Your task to perform on an android device: open app "Fetch Rewards" (install if not already installed) Image 0: 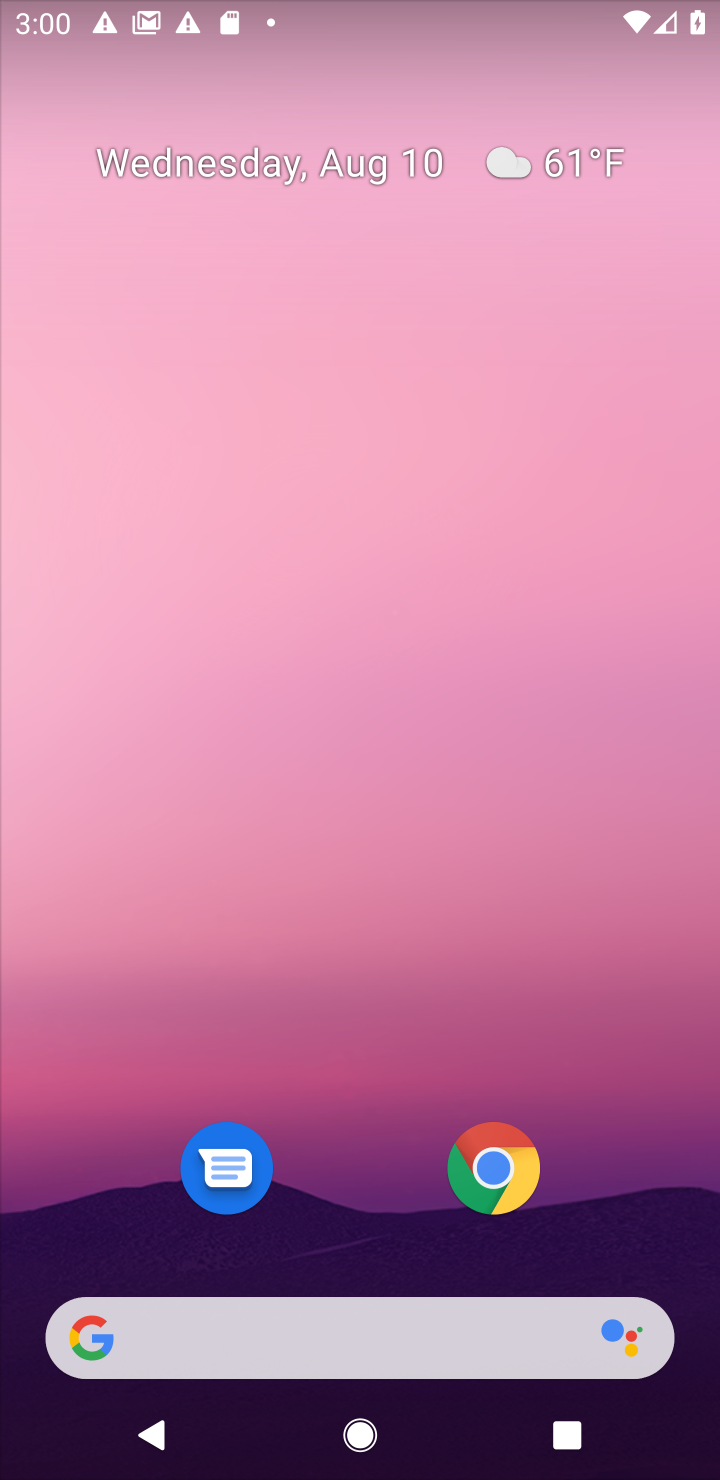
Step 0: drag from (255, 1348) to (394, 98)
Your task to perform on an android device: open app "Fetch Rewards" (install if not already installed) Image 1: 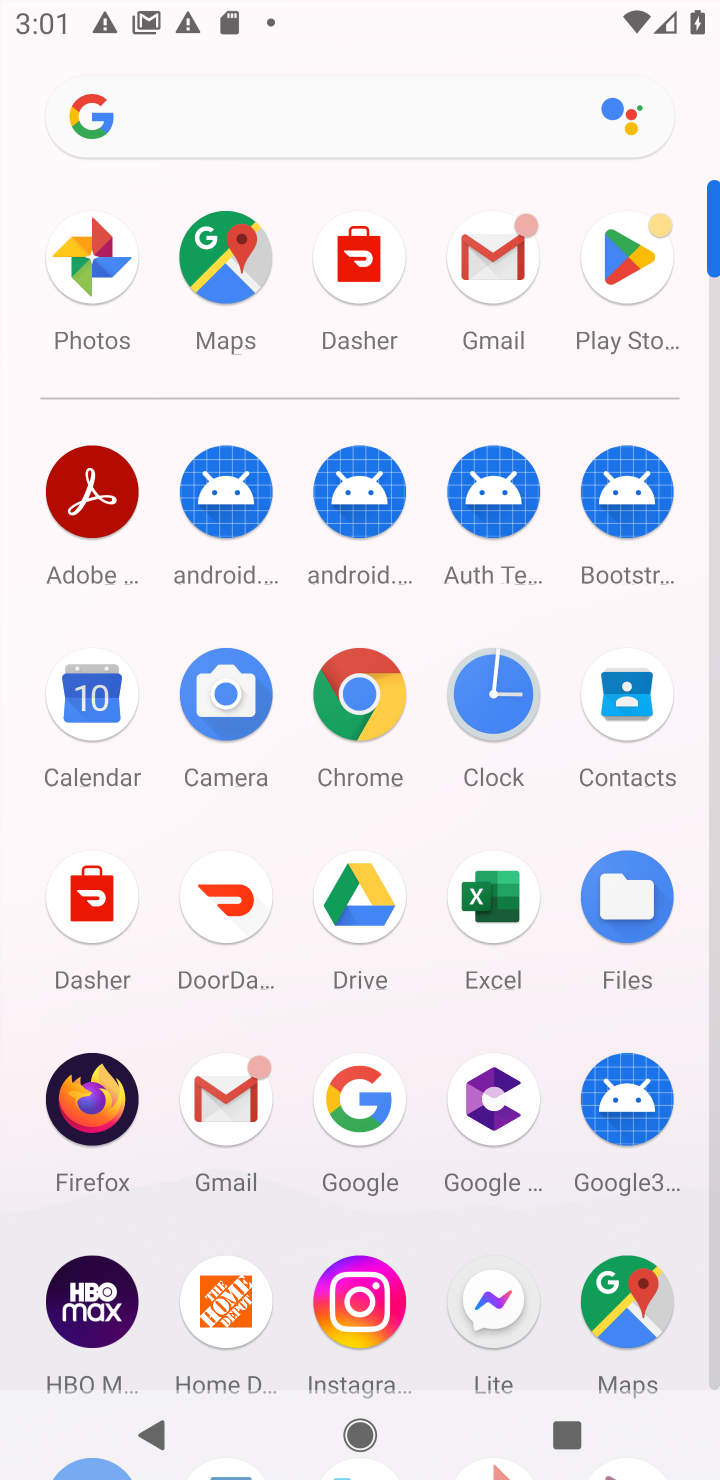
Step 1: click (643, 263)
Your task to perform on an android device: open app "Fetch Rewards" (install if not already installed) Image 2: 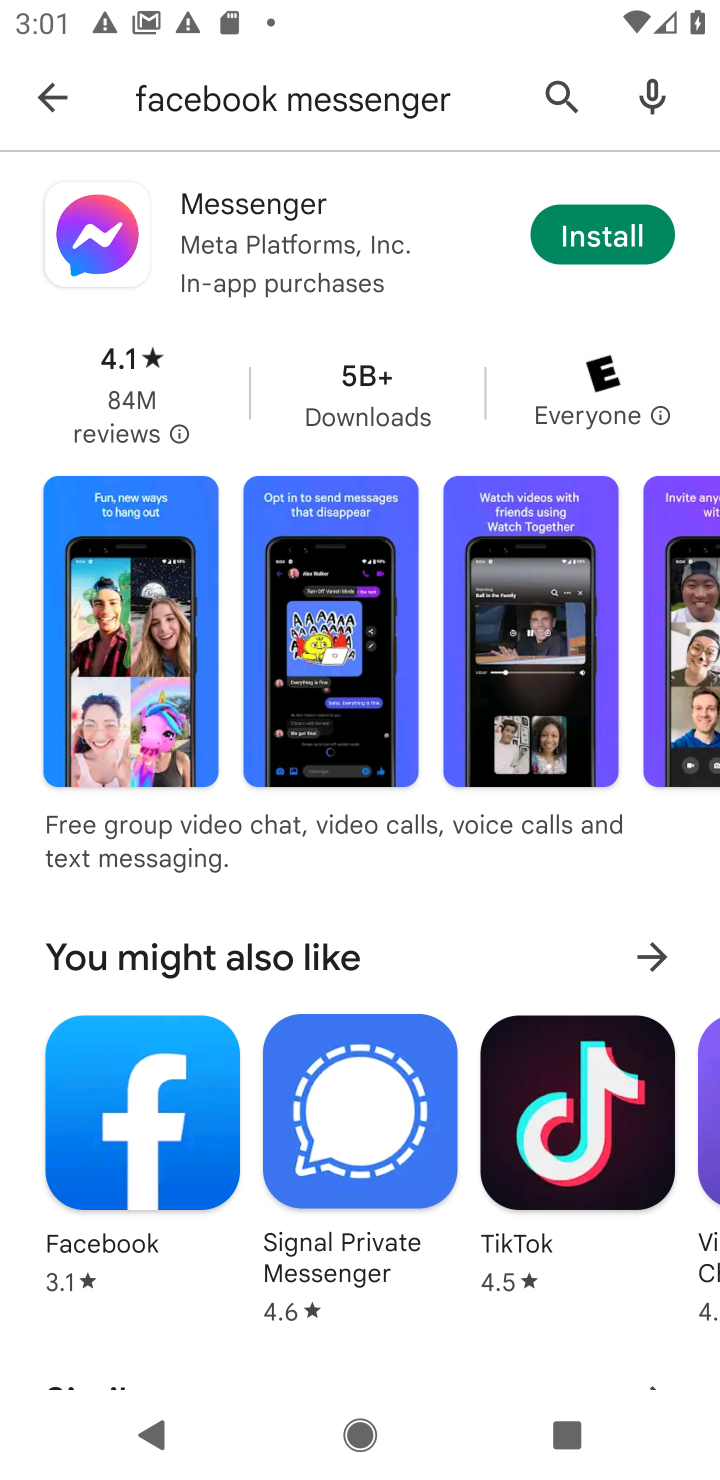
Step 2: press back button
Your task to perform on an android device: open app "Fetch Rewards" (install if not already installed) Image 3: 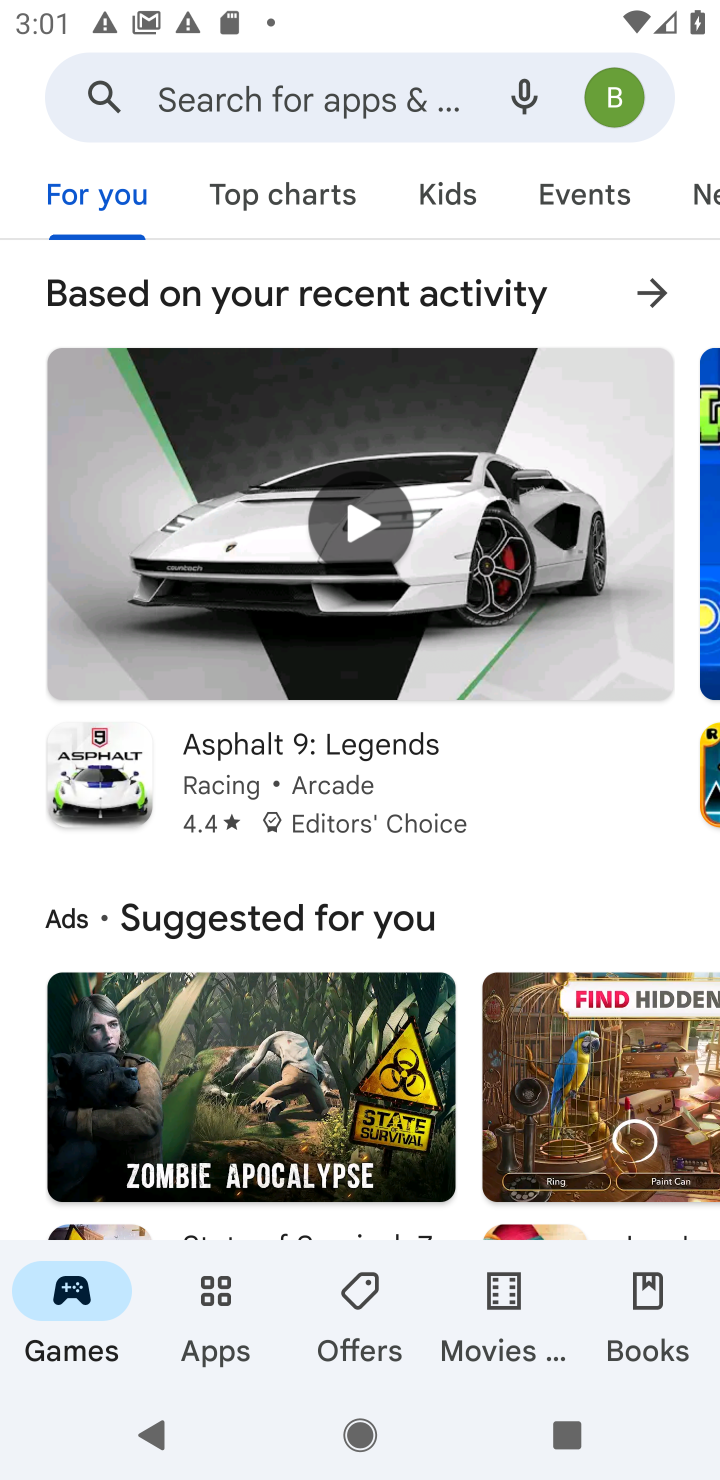
Step 3: click (336, 99)
Your task to perform on an android device: open app "Fetch Rewards" (install if not already installed) Image 4: 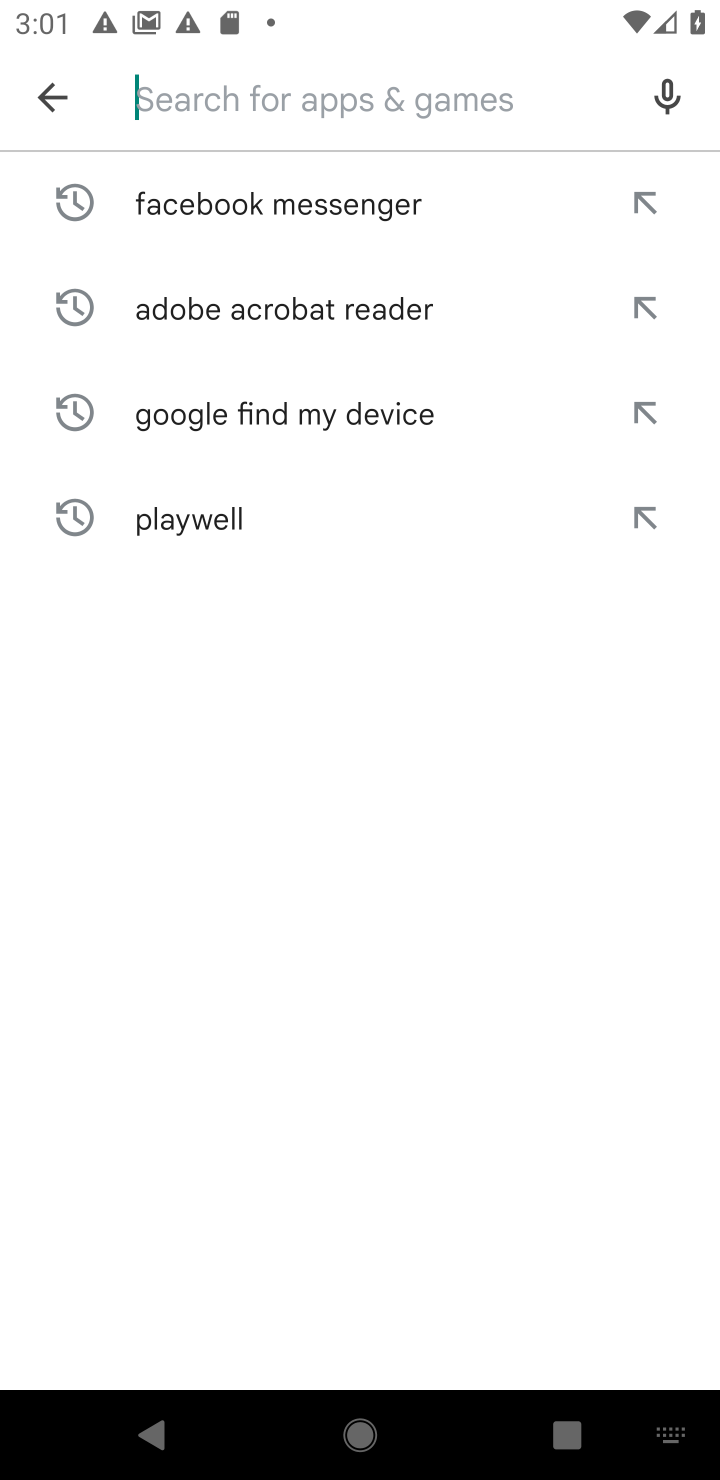
Step 4: type "Fetch Reward"
Your task to perform on an android device: open app "Fetch Rewards" (install if not already installed) Image 5: 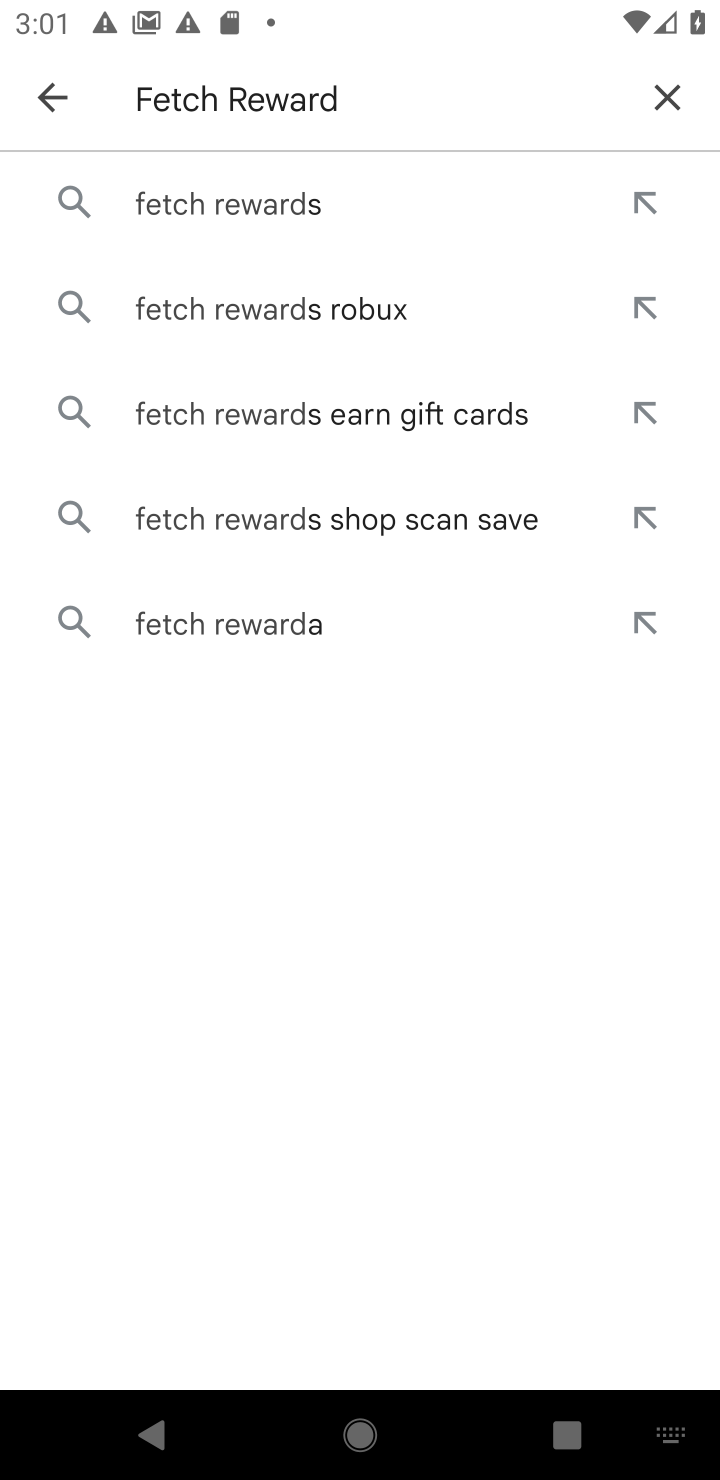
Step 5: click (294, 204)
Your task to perform on an android device: open app "Fetch Rewards" (install if not already installed) Image 6: 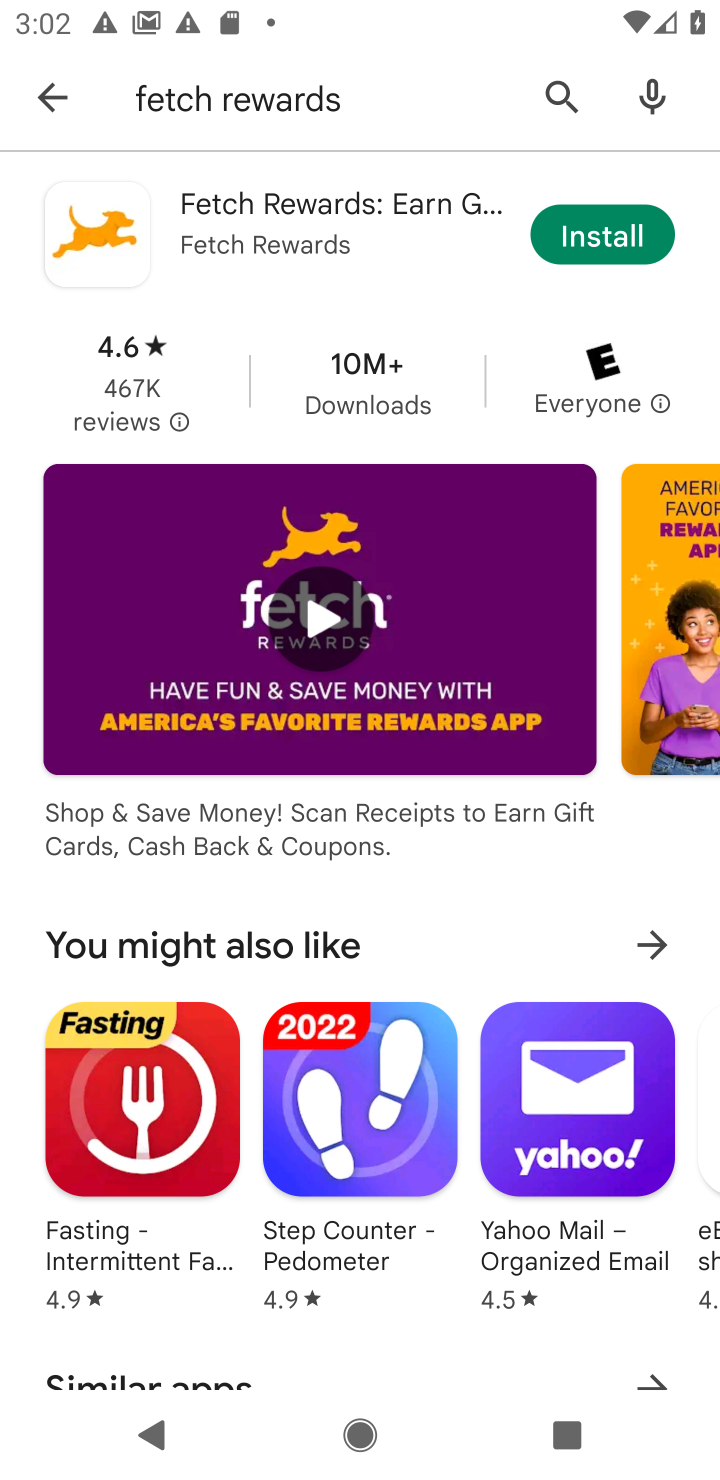
Step 6: click (603, 246)
Your task to perform on an android device: open app "Fetch Rewards" (install if not already installed) Image 7: 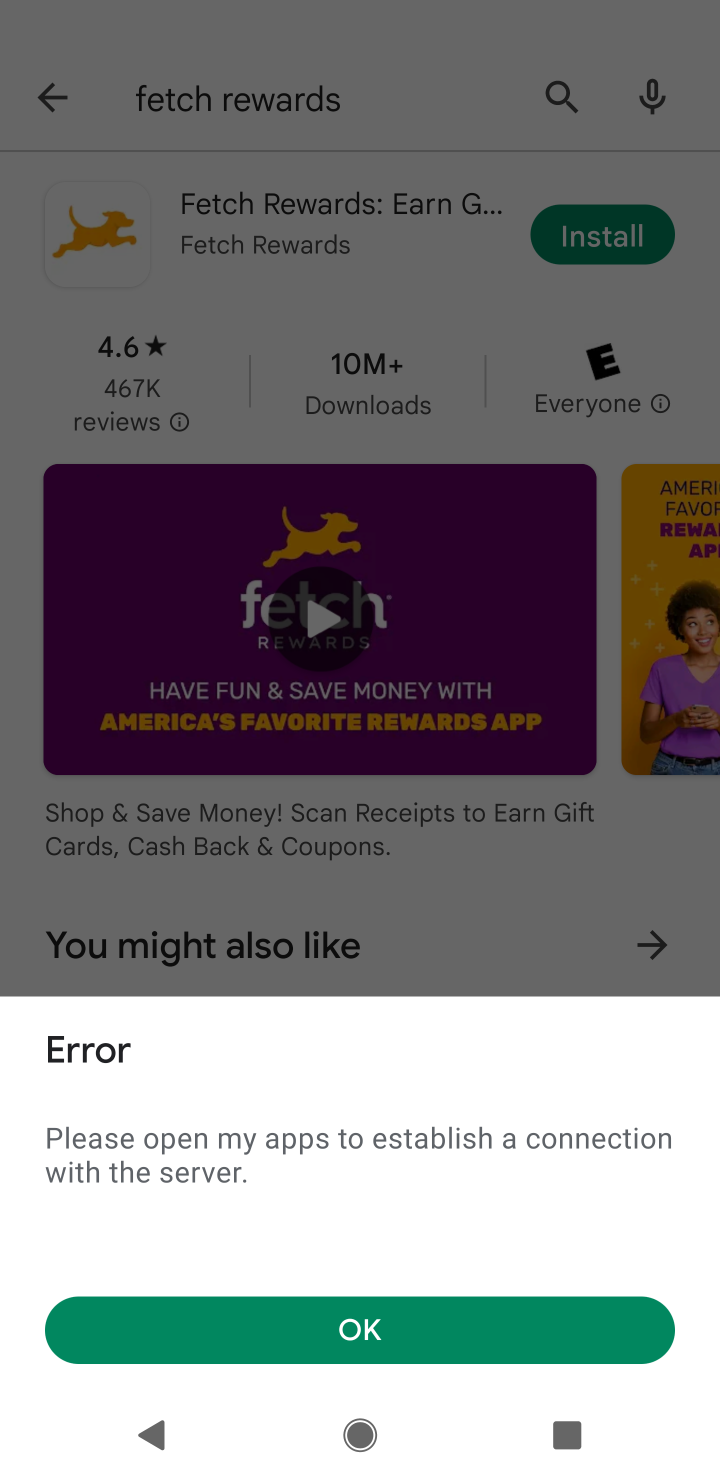
Step 7: click (410, 1326)
Your task to perform on an android device: open app "Fetch Rewards" (install if not already installed) Image 8: 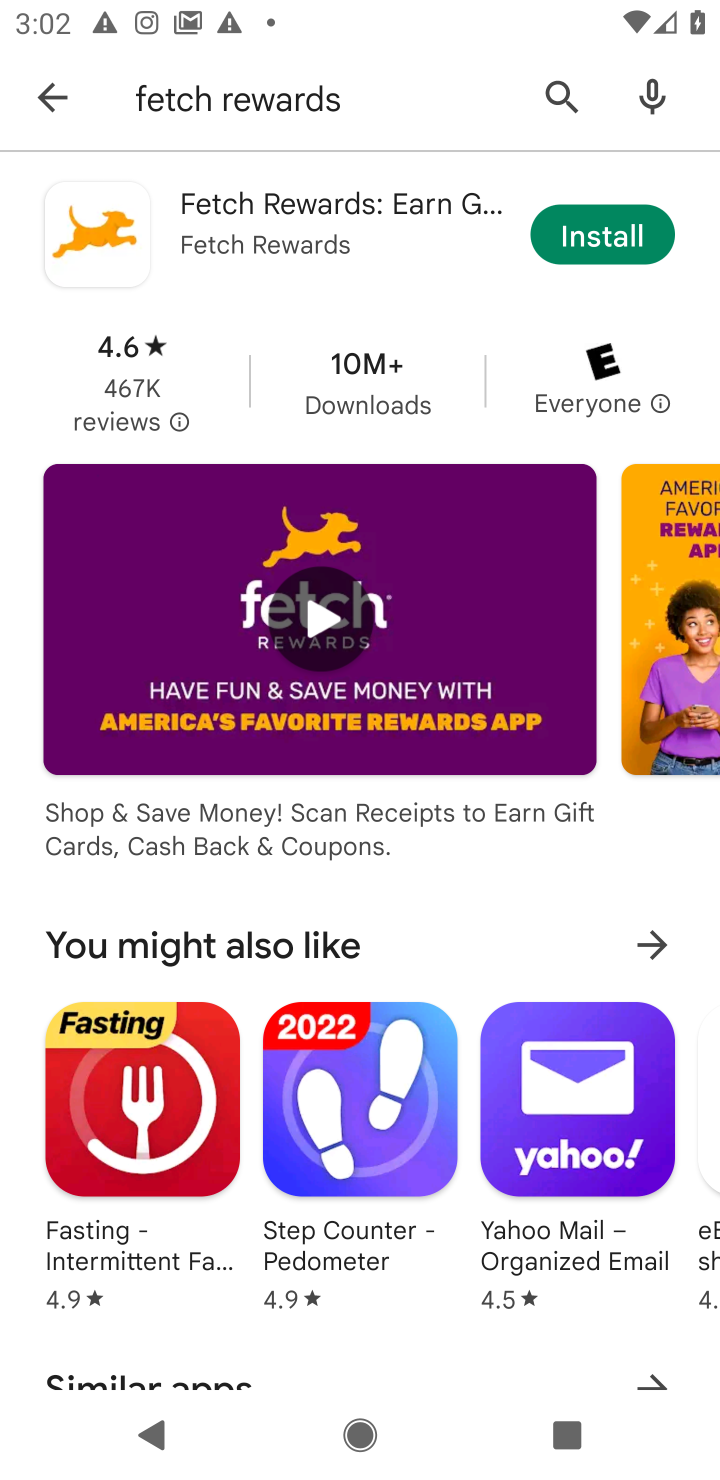
Step 8: click (304, 197)
Your task to perform on an android device: open app "Fetch Rewards" (install if not already installed) Image 9: 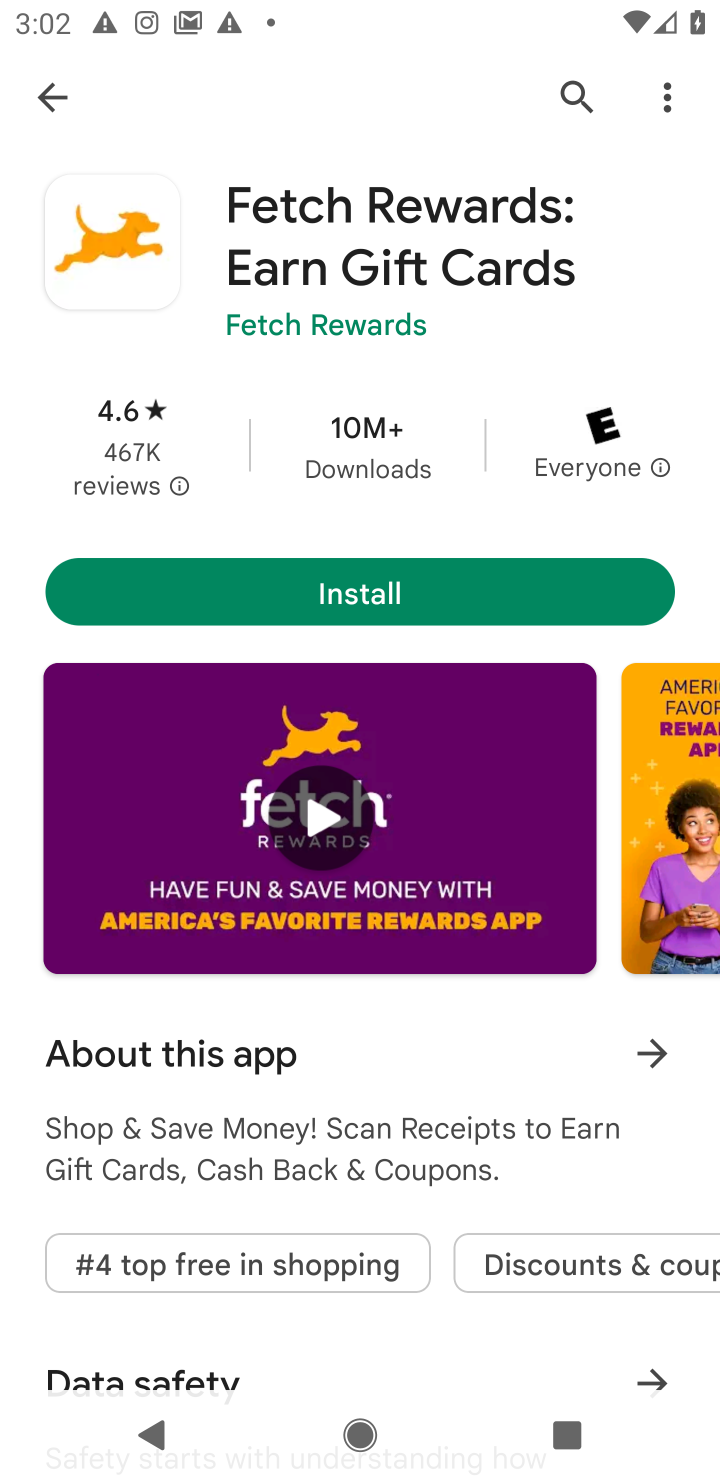
Step 9: click (408, 605)
Your task to perform on an android device: open app "Fetch Rewards" (install if not already installed) Image 10: 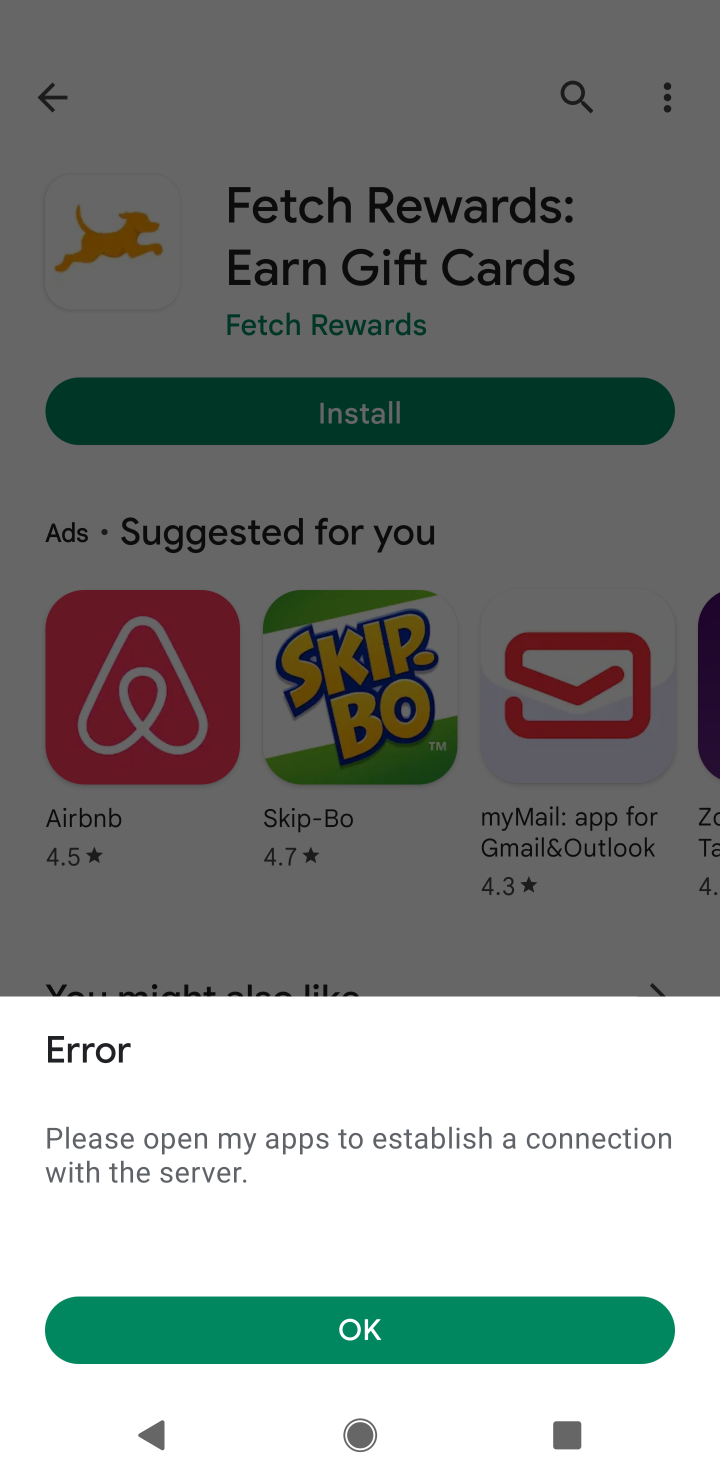
Step 10: click (377, 1335)
Your task to perform on an android device: open app "Fetch Rewards" (install if not already installed) Image 11: 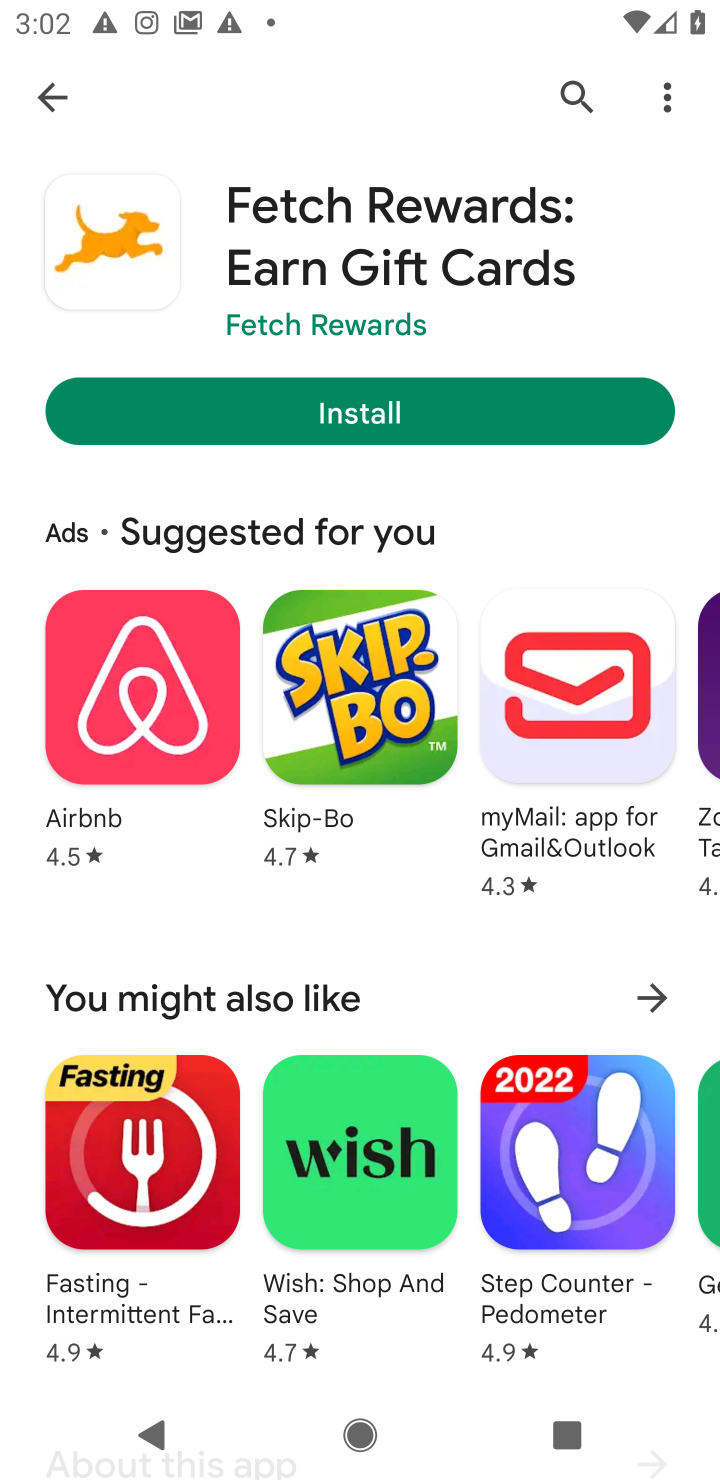
Step 11: task complete